Your task to perform on an android device: move a message to another label in the gmail app Image 0: 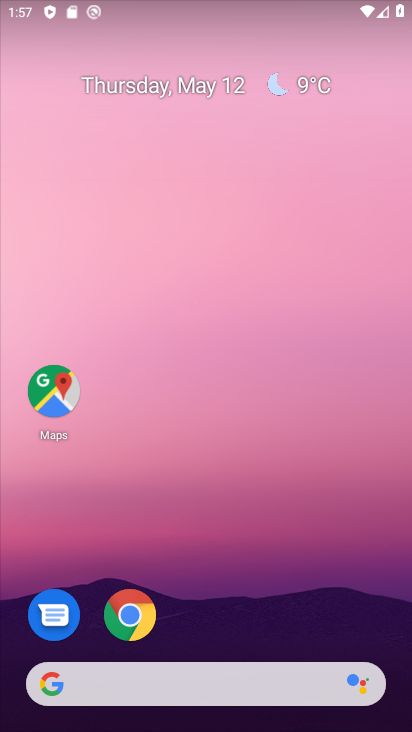
Step 0: drag from (186, 678) to (171, 24)
Your task to perform on an android device: move a message to another label in the gmail app Image 1: 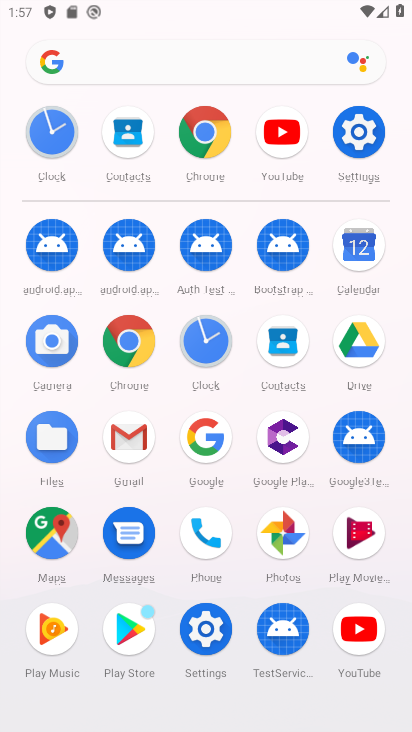
Step 1: click (136, 447)
Your task to perform on an android device: move a message to another label in the gmail app Image 2: 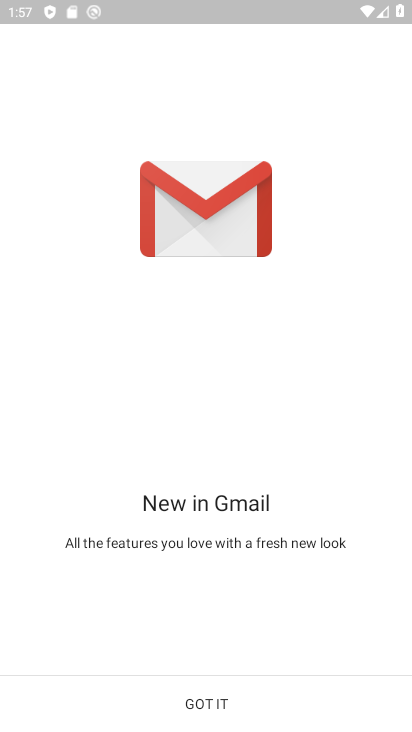
Step 2: click (209, 696)
Your task to perform on an android device: move a message to another label in the gmail app Image 3: 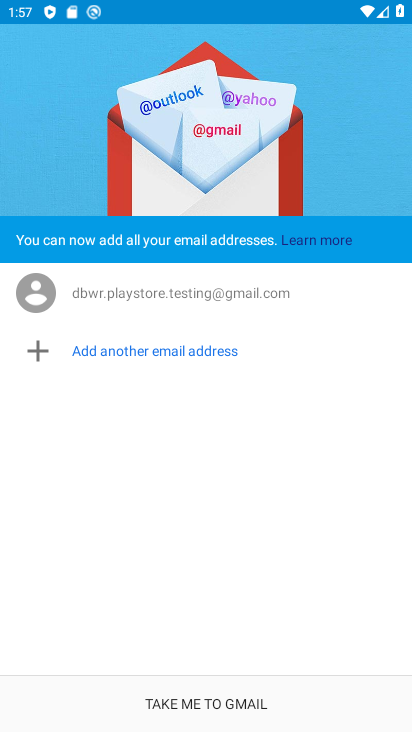
Step 3: click (198, 704)
Your task to perform on an android device: move a message to another label in the gmail app Image 4: 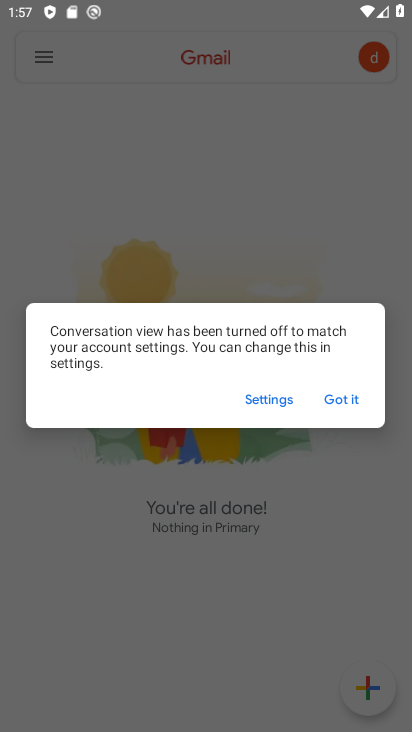
Step 4: click (338, 405)
Your task to perform on an android device: move a message to another label in the gmail app Image 5: 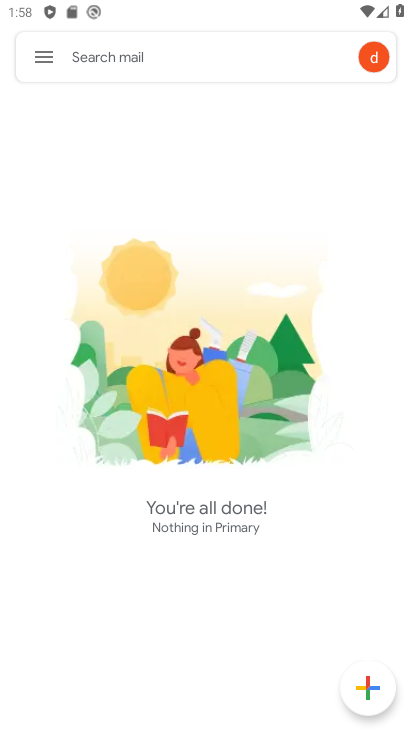
Step 5: click (33, 55)
Your task to perform on an android device: move a message to another label in the gmail app Image 6: 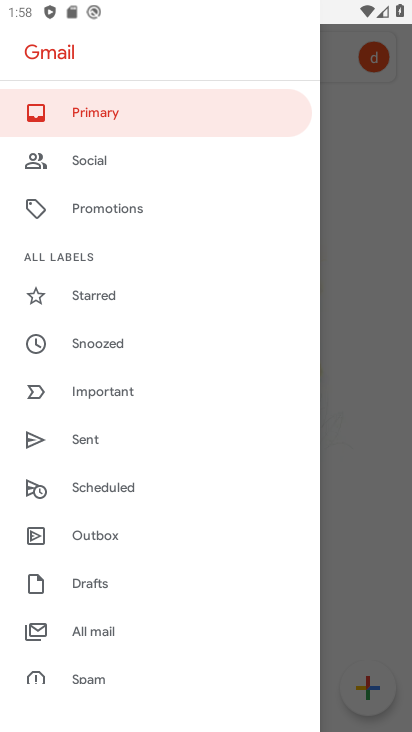
Step 6: click (99, 629)
Your task to perform on an android device: move a message to another label in the gmail app Image 7: 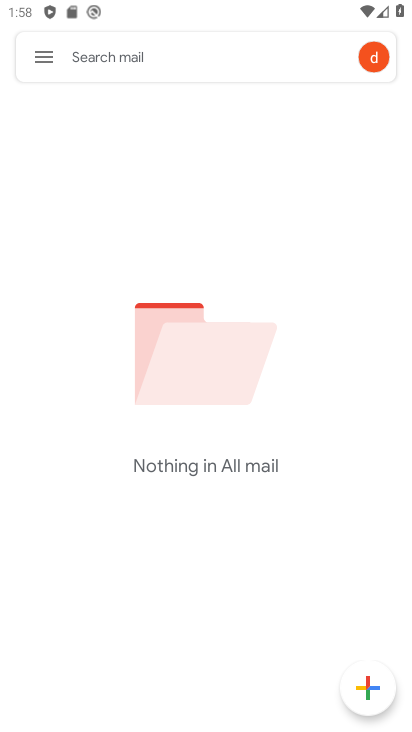
Step 7: task complete